Your task to perform on an android device: change alarm snooze length Image 0: 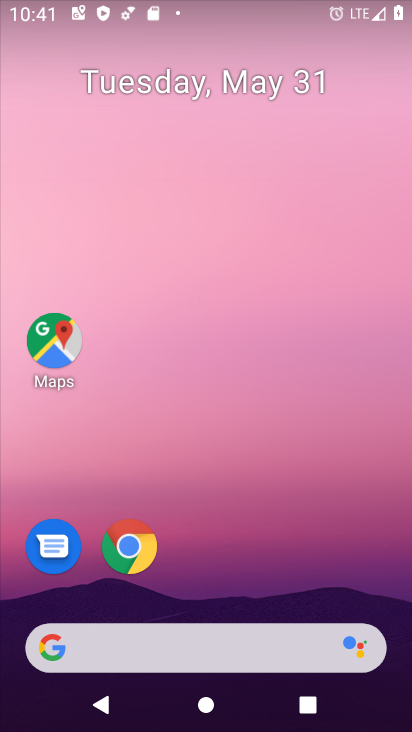
Step 0: drag from (214, 634) to (162, 53)
Your task to perform on an android device: change alarm snooze length Image 1: 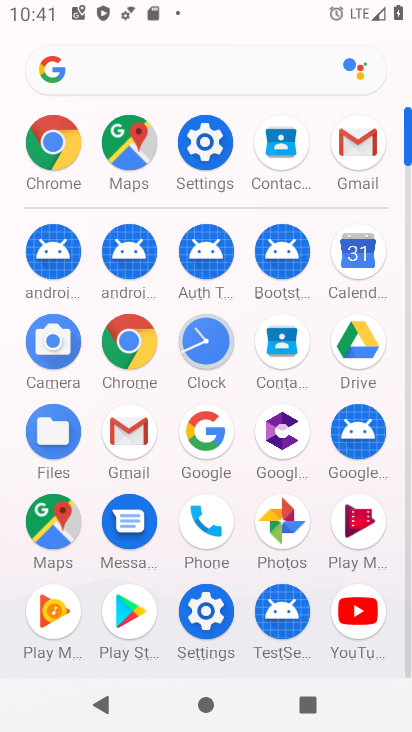
Step 1: click (187, 339)
Your task to perform on an android device: change alarm snooze length Image 2: 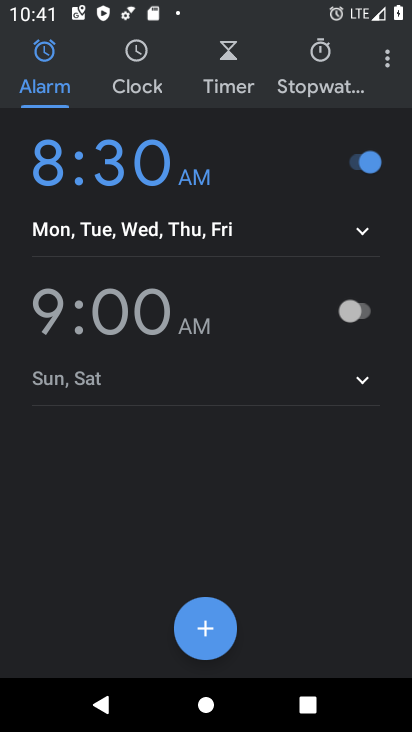
Step 2: click (382, 64)
Your task to perform on an android device: change alarm snooze length Image 3: 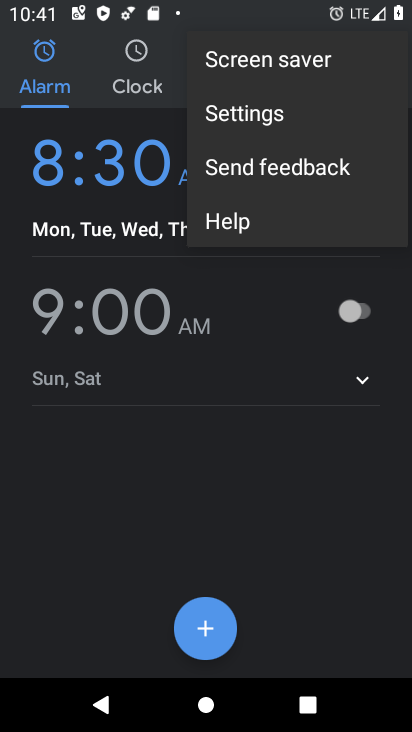
Step 3: click (288, 114)
Your task to perform on an android device: change alarm snooze length Image 4: 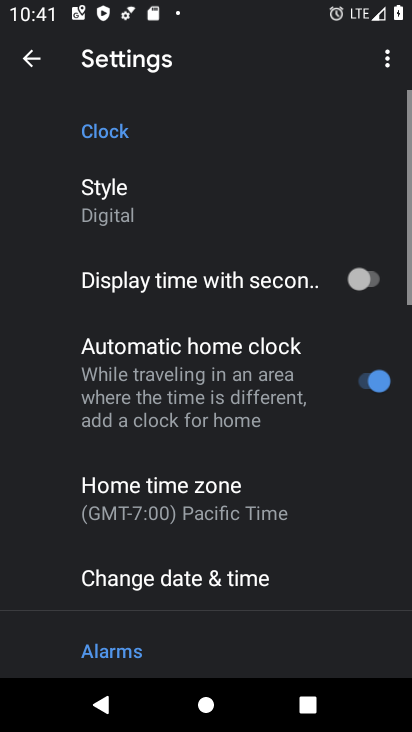
Step 4: drag from (295, 506) to (289, 9)
Your task to perform on an android device: change alarm snooze length Image 5: 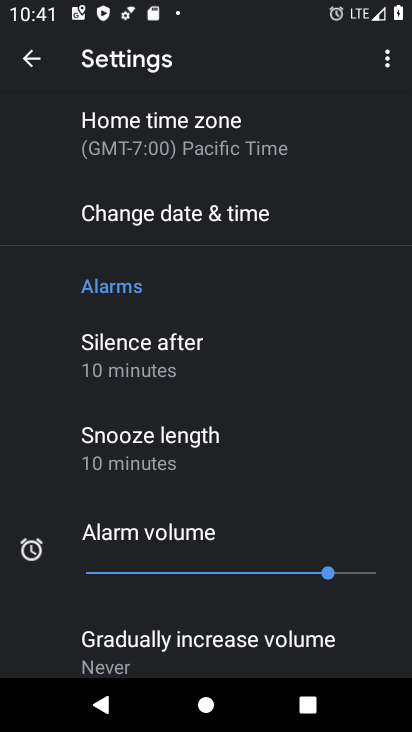
Step 5: click (180, 464)
Your task to perform on an android device: change alarm snooze length Image 6: 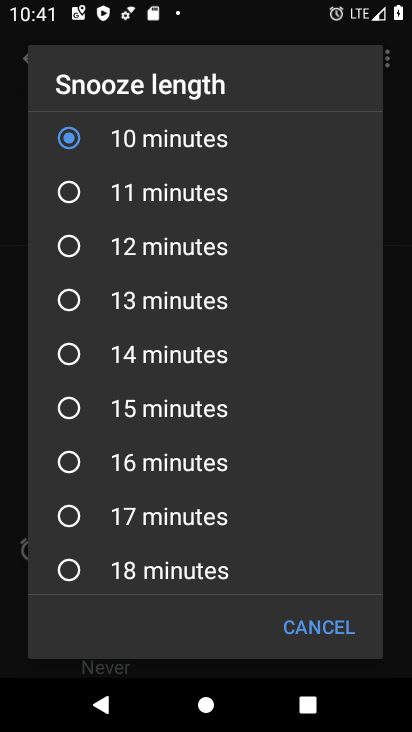
Step 6: click (74, 244)
Your task to perform on an android device: change alarm snooze length Image 7: 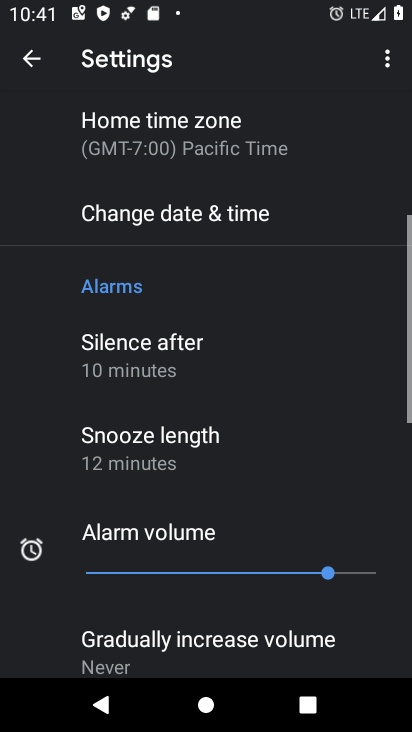
Step 7: task complete